Your task to perform on an android device: Search for Italian restaurants on Maps Image 0: 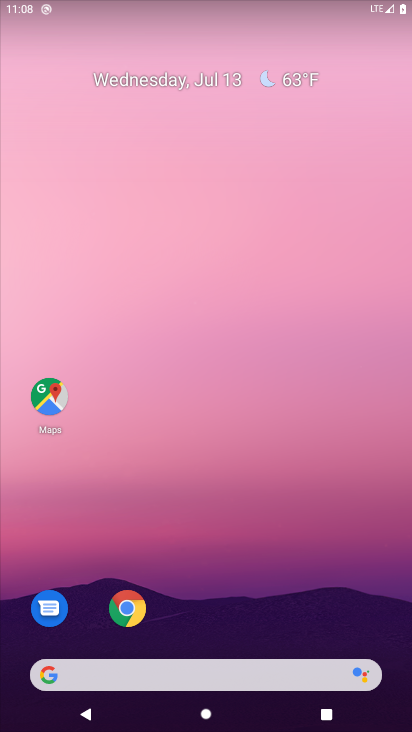
Step 0: drag from (199, 619) to (213, 59)
Your task to perform on an android device: Search for Italian restaurants on Maps Image 1: 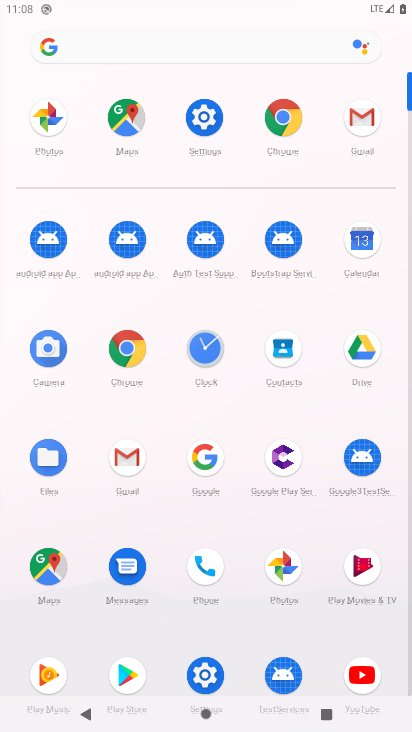
Step 1: click (109, 114)
Your task to perform on an android device: Search for Italian restaurants on Maps Image 2: 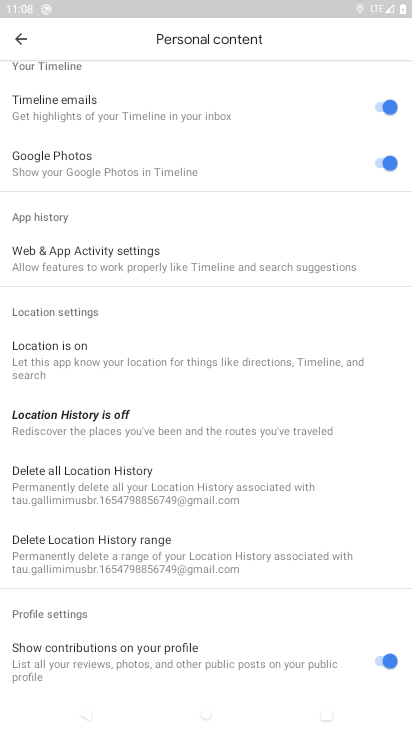
Step 2: click (18, 36)
Your task to perform on an android device: Search for Italian restaurants on Maps Image 3: 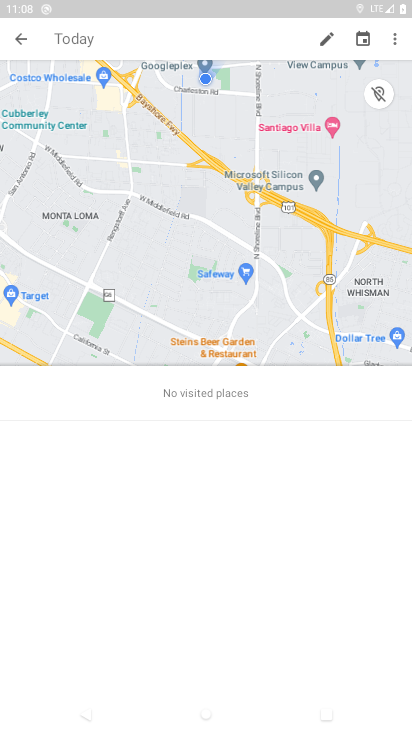
Step 3: click (18, 37)
Your task to perform on an android device: Search for Italian restaurants on Maps Image 4: 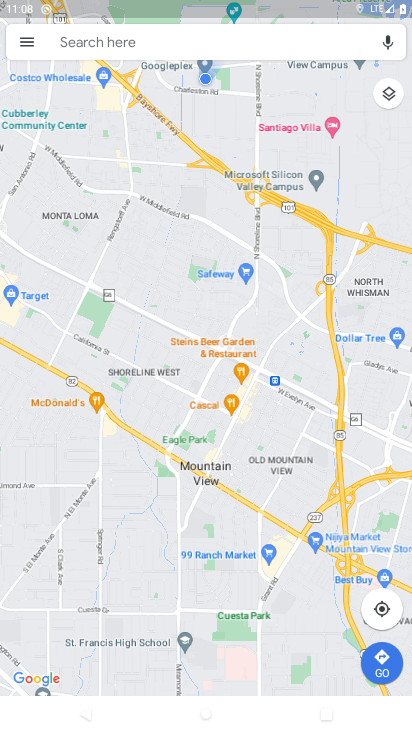
Step 4: click (83, 48)
Your task to perform on an android device: Search for Italian restaurants on Maps Image 5: 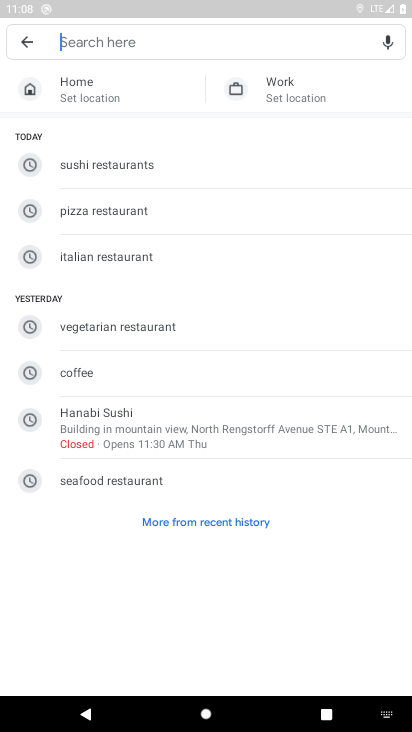
Step 5: type "Italian restaurants"
Your task to perform on an android device: Search for Italian restaurants on Maps Image 6: 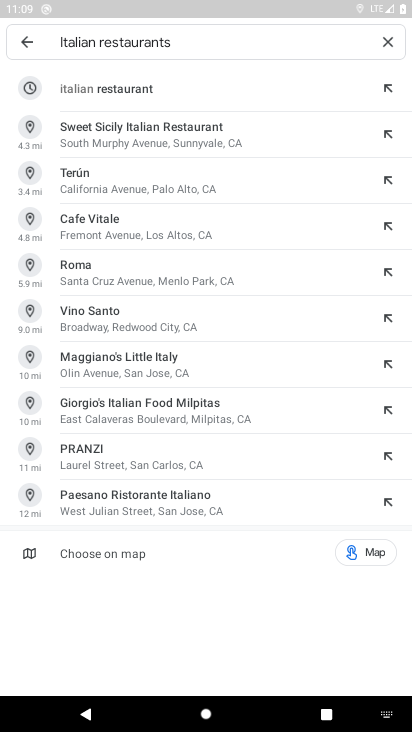
Step 6: click (90, 88)
Your task to perform on an android device: Search for Italian restaurants on Maps Image 7: 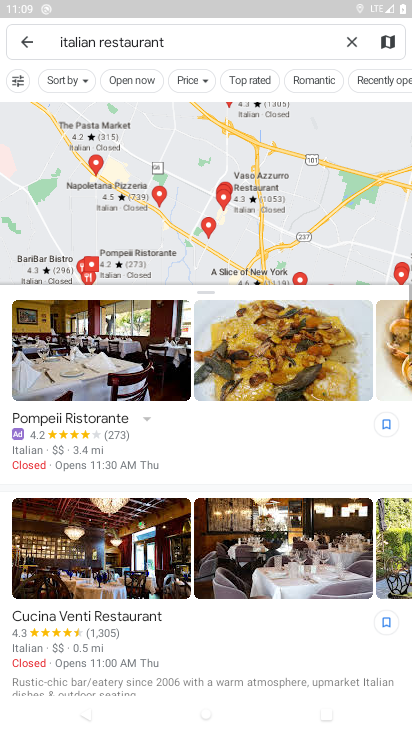
Step 7: task complete